Your task to perform on an android device: turn notification dots off Image 0: 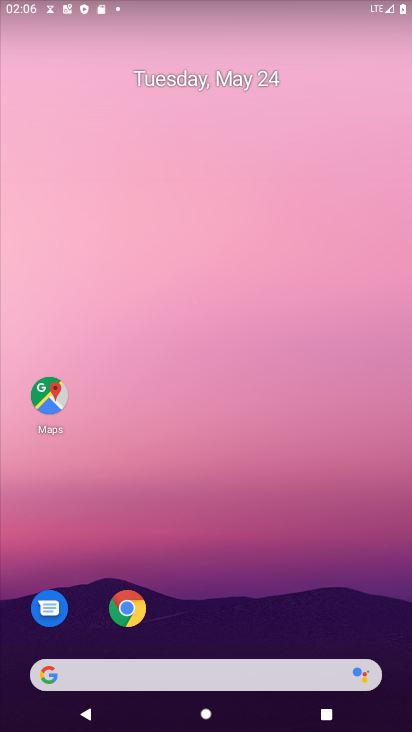
Step 0: drag from (263, 630) to (195, 195)
Your task to perform on an android device: turn notification dots off Image 1: 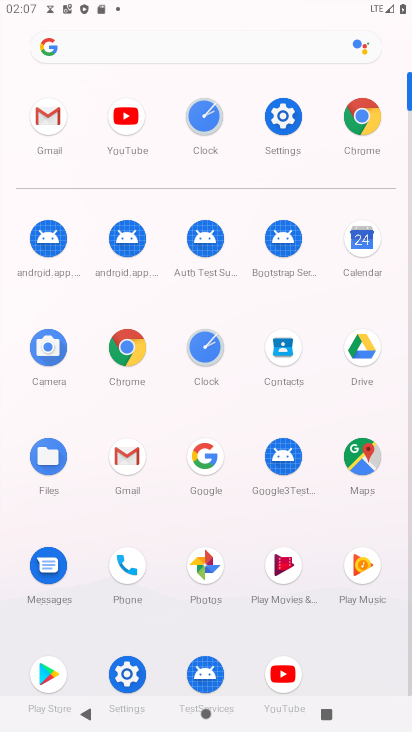
Step 1: click (286, 108)
Your task to perform on an android device: turn notification dots off Image 2: 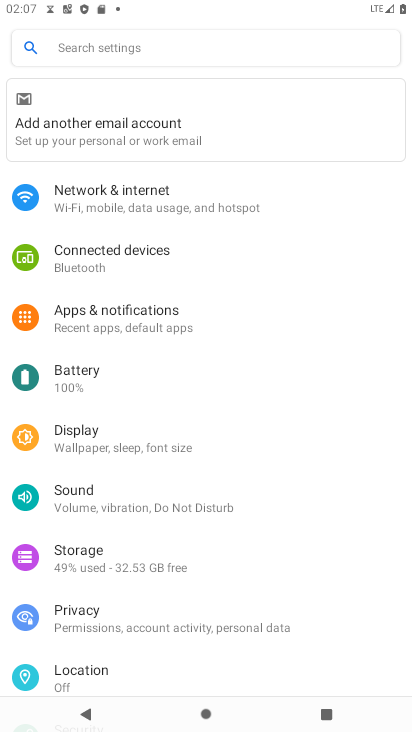
Step 2: click (199, 320)
Your task to perform on an android device: turn notification dots off Image 3: 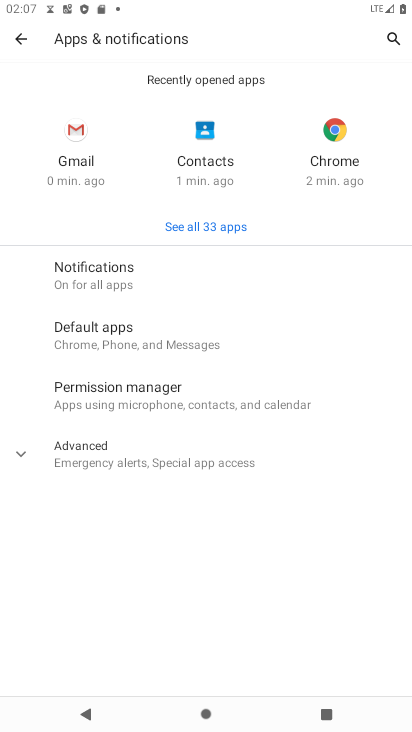
Step 3: click (198, 288)
Your task to perform on an android device: turn notification dots off Image 4: 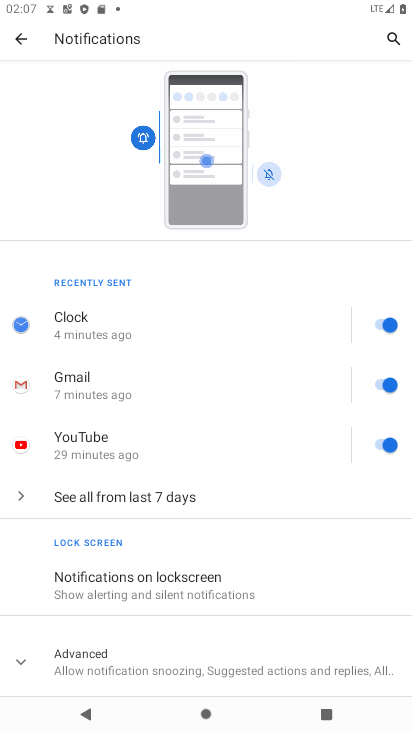
Step 4: click (257, 664)
Your task to perform on an android device: turn notification dots off Image 5: 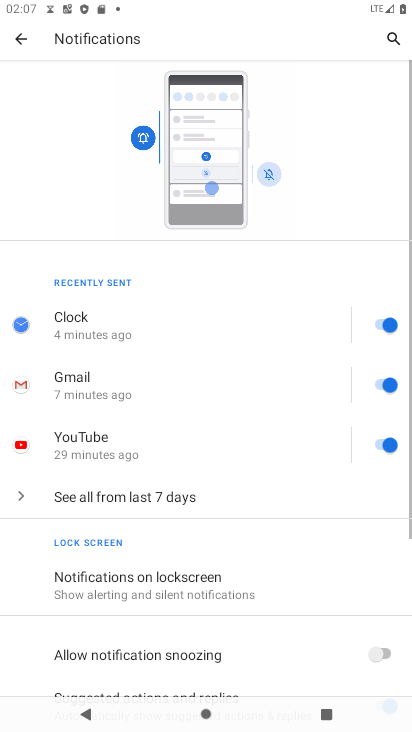
Step 5: task complete